Your task to perform on an android device: Search for vegetarian restaurants on Maps Image 0: 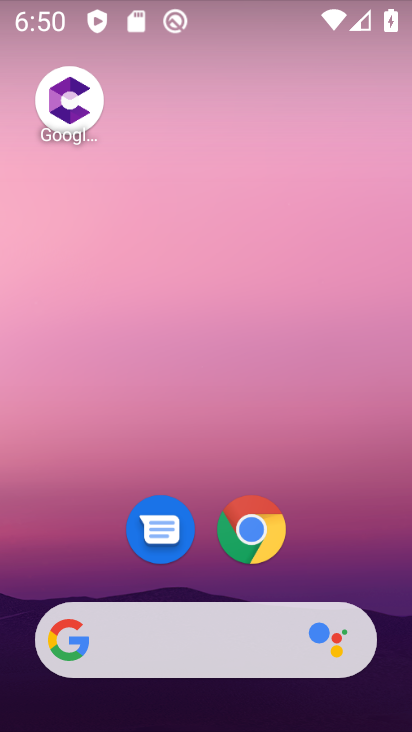
Step 0: drag from (207, 602) to (175, 203)
Your task to perform on an android device: Search for vegetarian restaurants on Maps Image 1: 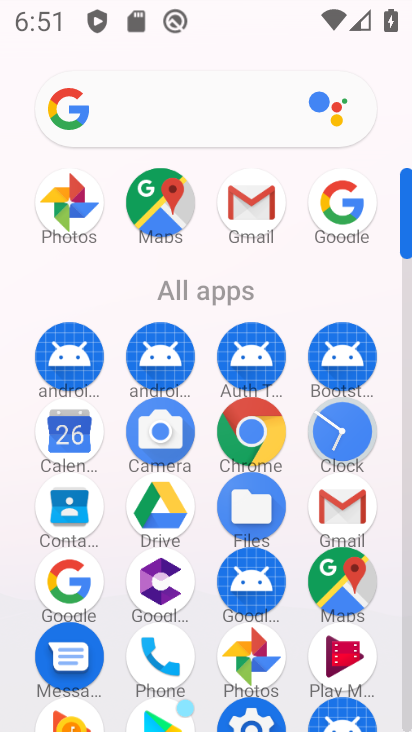
Step 1: click (161, 208)
Your task to perform on an android device: Search for vegetarian restaurants on Maps Image 2: 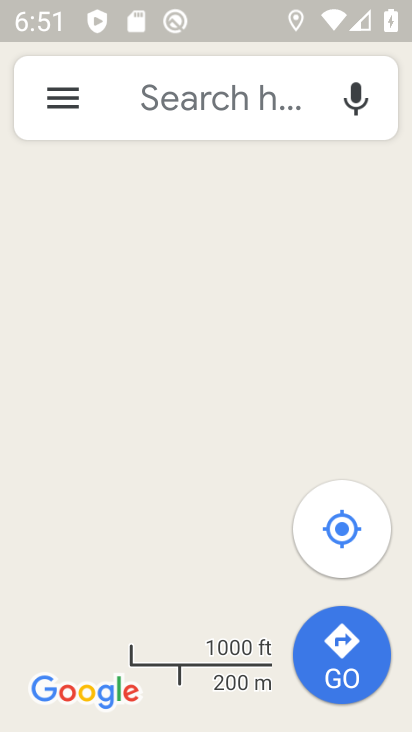
Step 2: click (203, 89)
Your task to perform on an android device: Search for vegetarian restaurants on Maps Image 3: 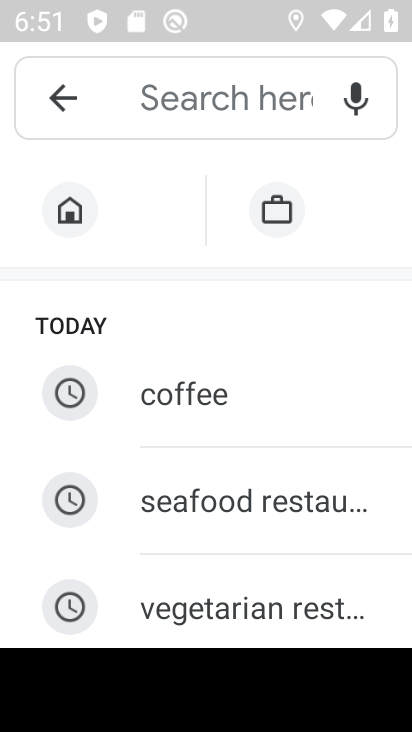
Step 3: click (270, 610)
Your task to perform on an android device: Search for vegetarian restaurants on Maps Image 4: 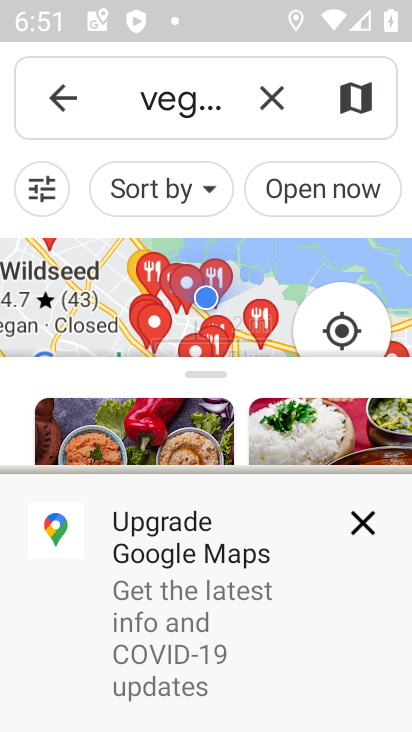
Step 4: click (369, 526)
Your task to perform on an android device: Search for vegetarian restaurants on Maps Image 5: 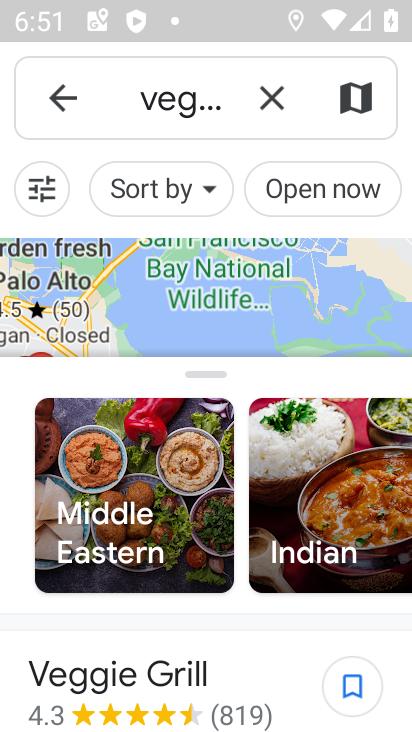
Step 5: task complete